Your task to perform on an android device: Go to CNN.com Image 0: 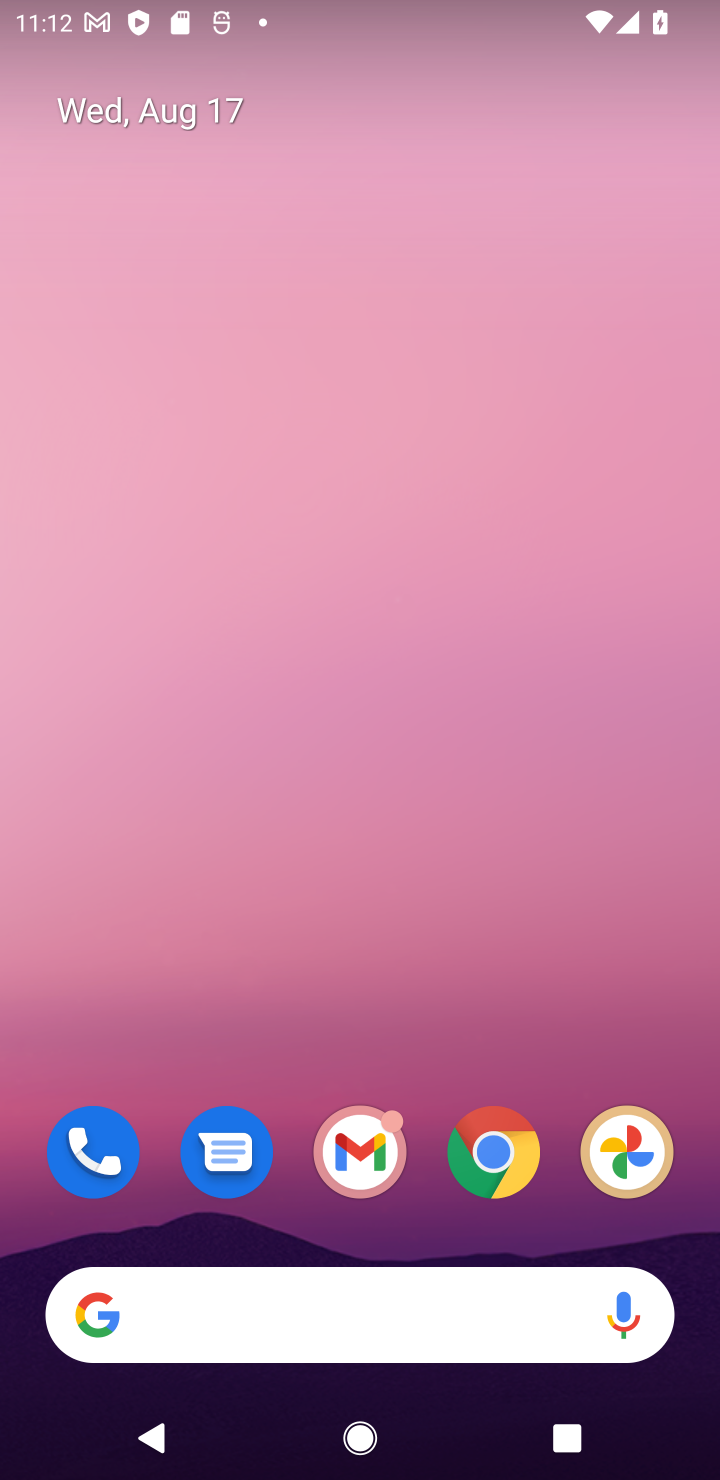
Step 0: drag from (575, 1155) to (504, 107)
Your task to perform on an android device: Go to CNN.com Image 1: 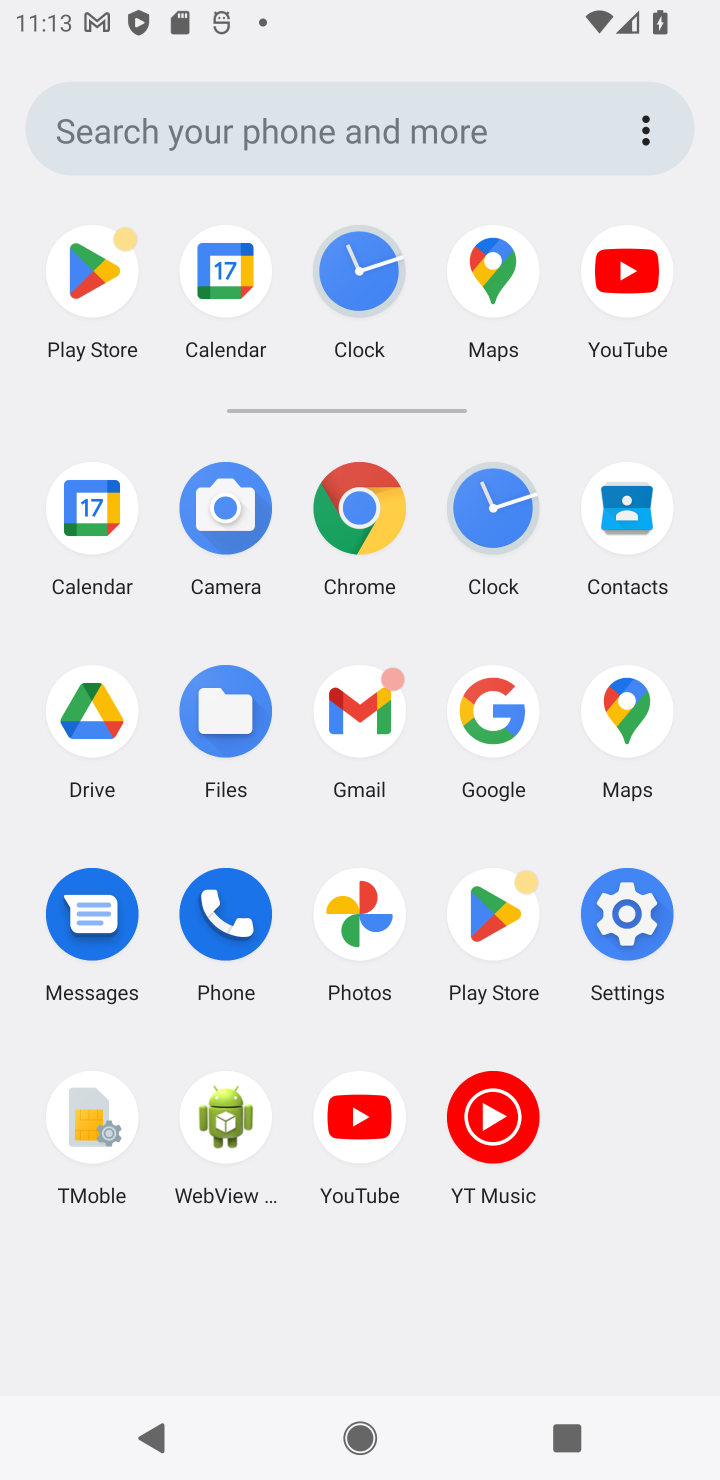
Step 1: click (457, 708)
Your task to perform on an android device: Go to CNN.com Image 2: 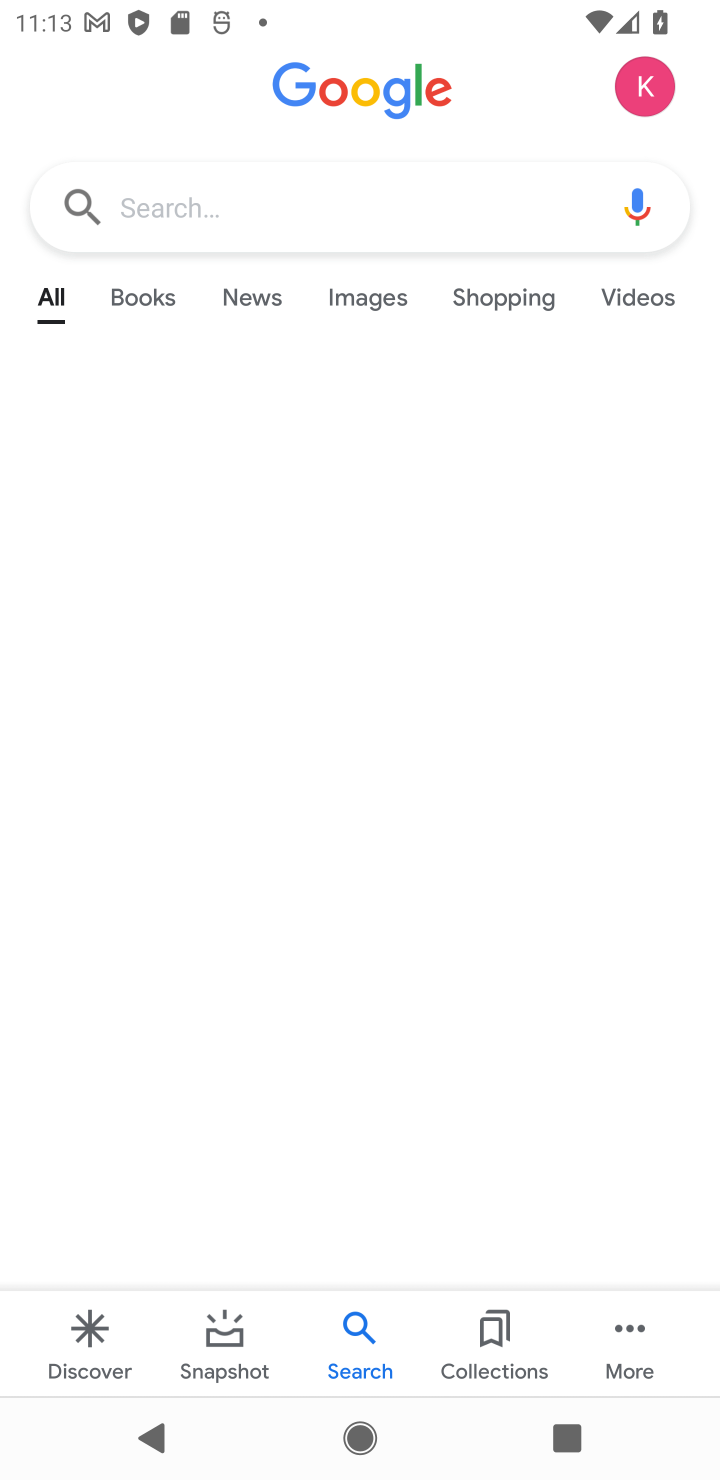
Step 2: click (225, 198)
Your task to perform on an android device: Go to CNN.com Image 3: 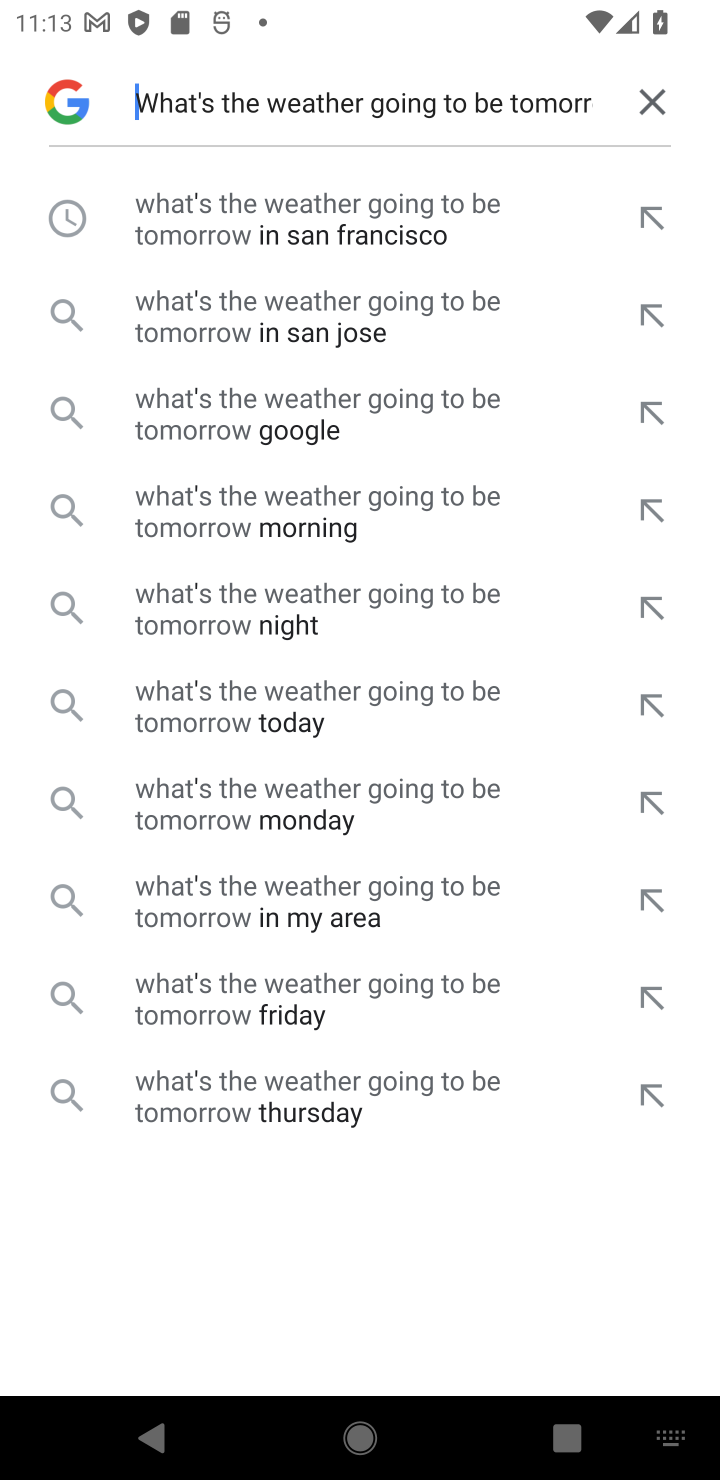
Step 3: click (662, 100)
Your task to perform on an android device: Go to CNN.com Image 4: 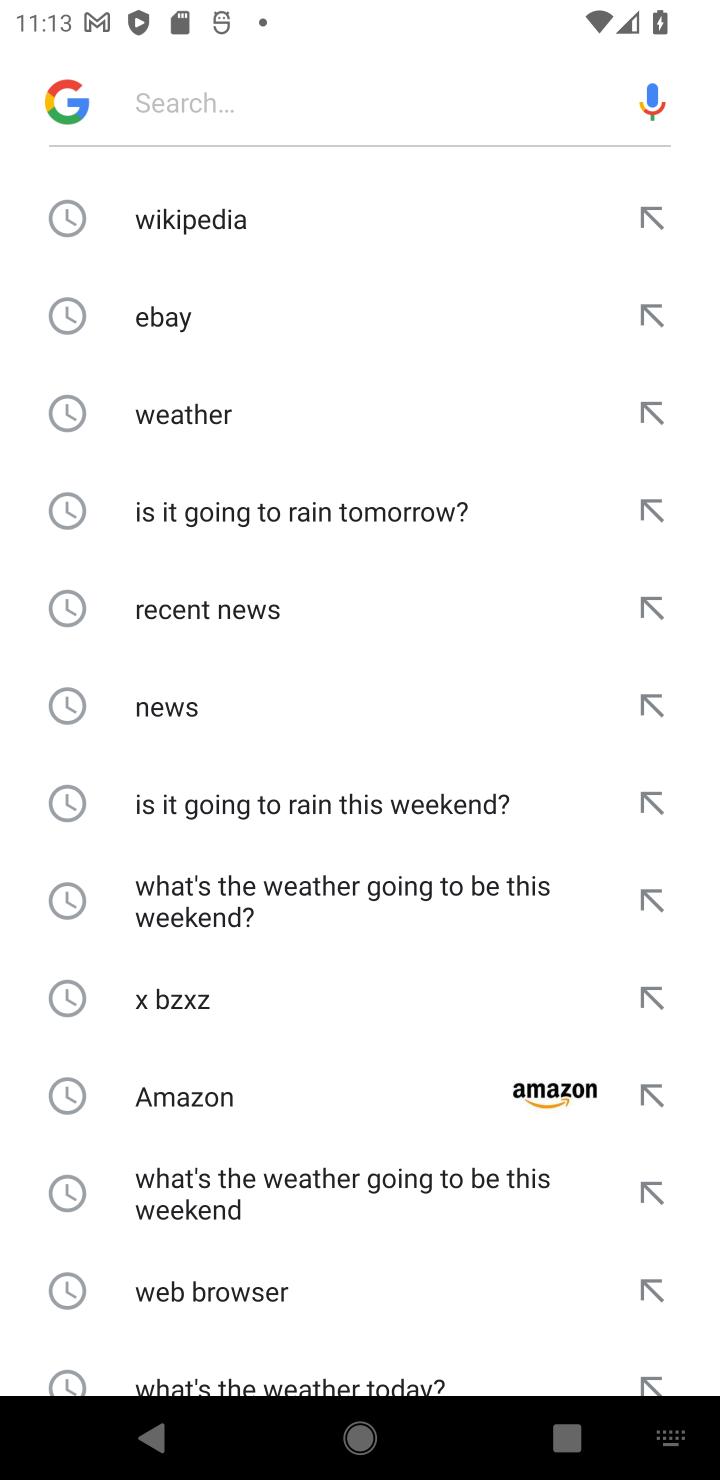
Step 4: type "CNN.com"
Your task to perform on an android device: Go to CNN.com Image 5: 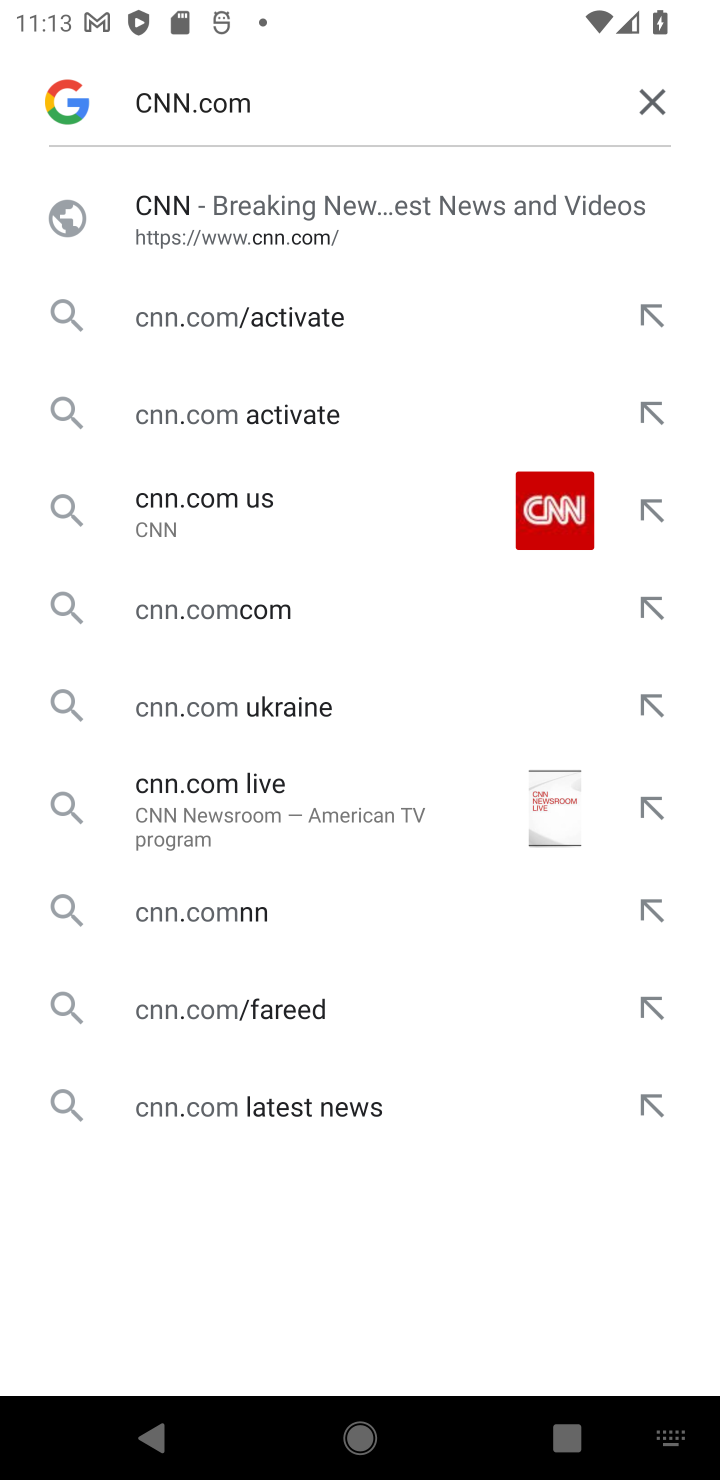
Step 5: click (272, 239)
Your task to perform on an android device: Go to CNN.com Image 6: 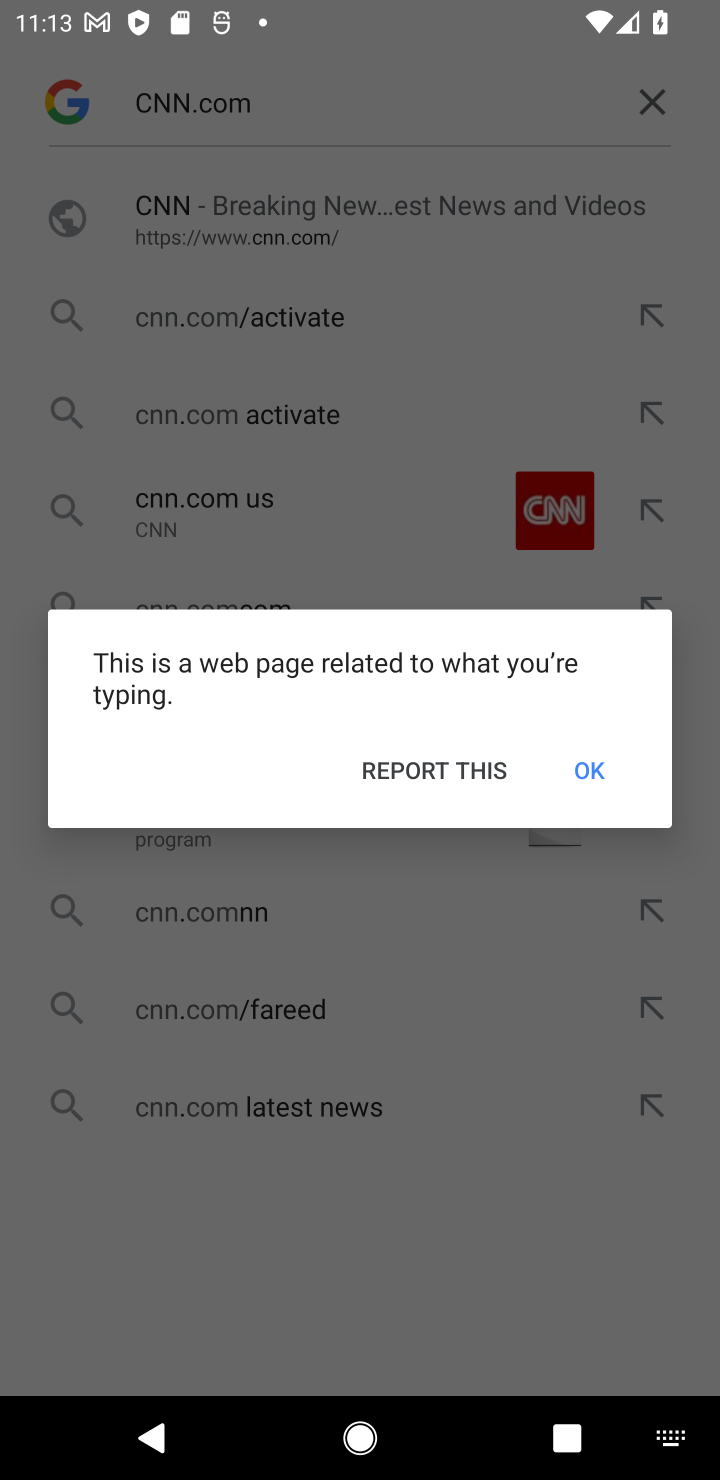
Step 6: click (587, 746)
Your task to perform on an android device: Go to CNN.com Image 7: 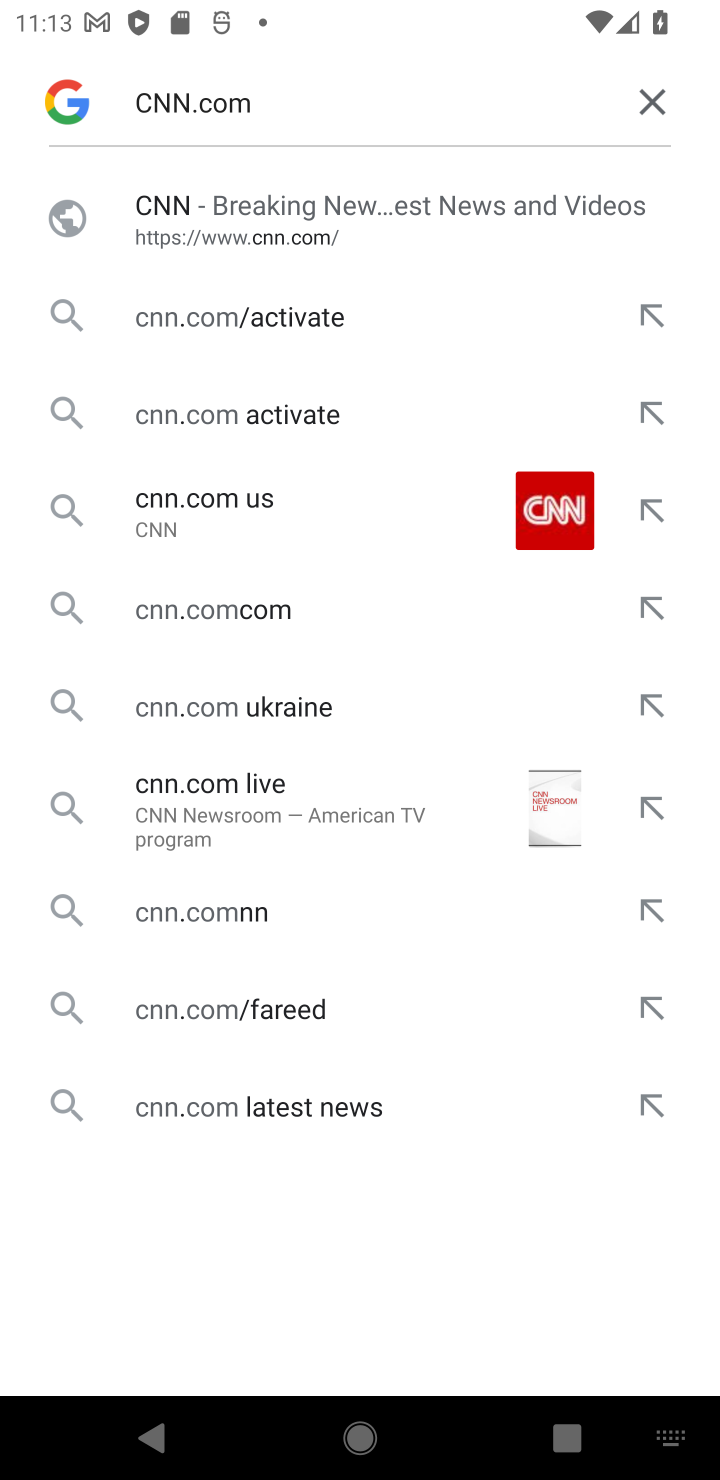
Step 7: click (332, 196)
Your task to perform on an android device: Go to CNN.com Image 8: 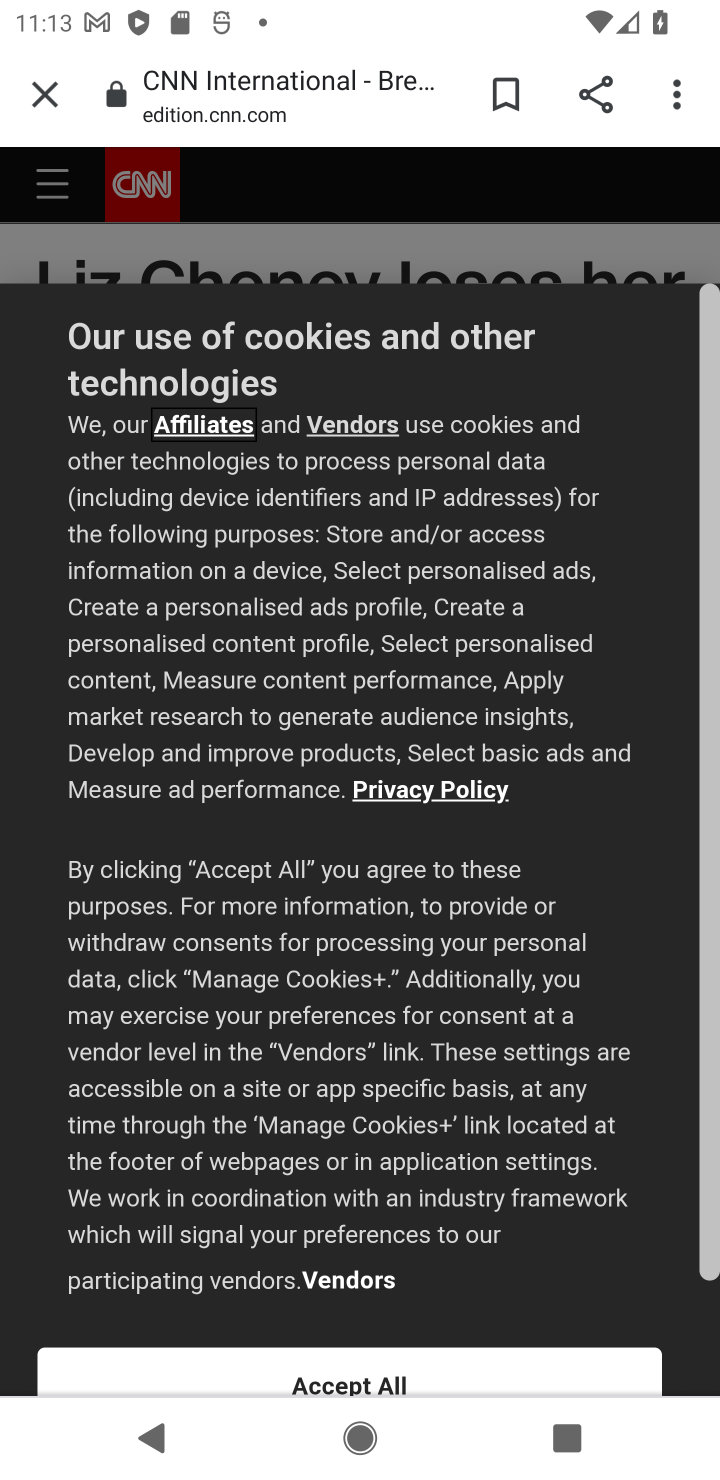
Step 8: task complete